Your task to perform on an android device: Open Amazon Image 0: 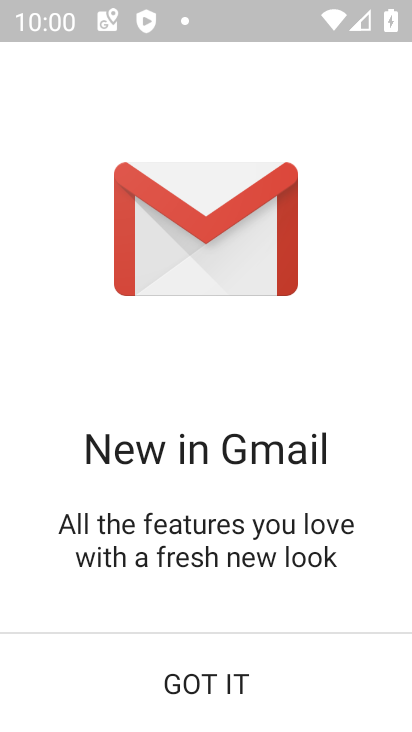
Step 0: press home button
Your task to perform on an android device: Open Amazon Image 1: 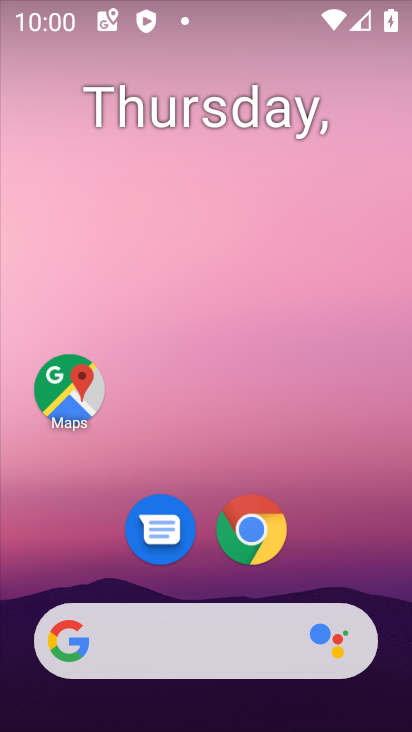
Step 1: click (250, 528)
Your task to perform on an android device: Open Amazon Image 2: 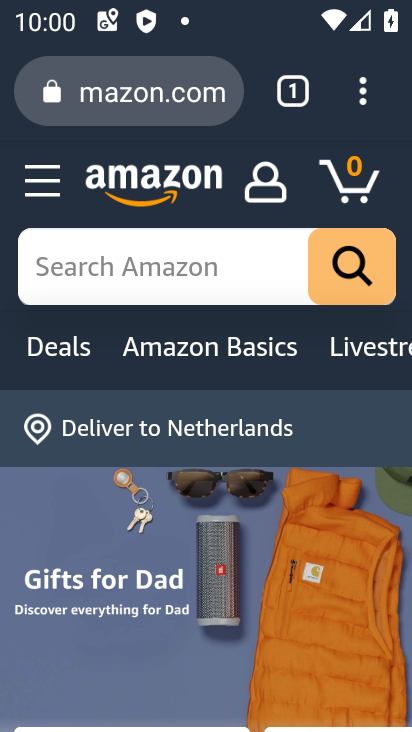
Step 2: task complete